Your task to perform on an android device: Open Google Maps Image 0: 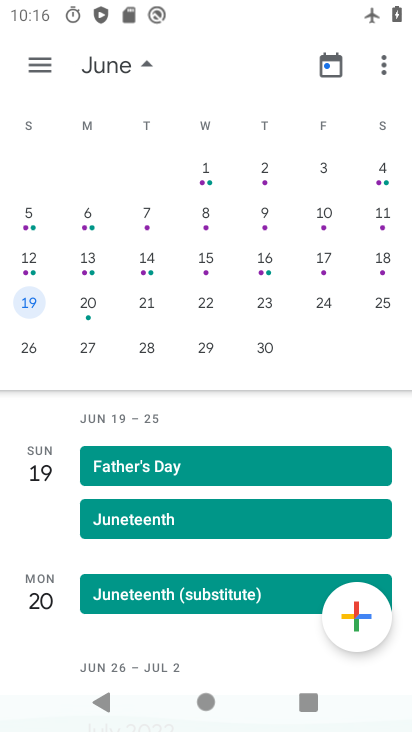
Step 0: press home button
Your task to perform on an android device: Open Google Maps Image 1: 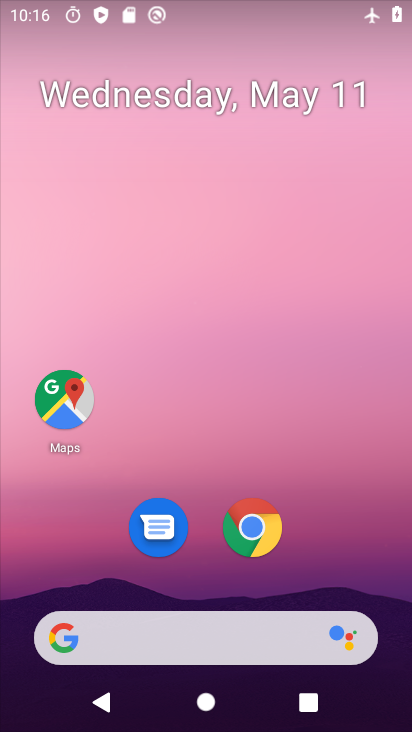
Step 1: drag from (252, 590) to (312, 170)
Your task to perform on an android device: Open Google Maps Image 2: 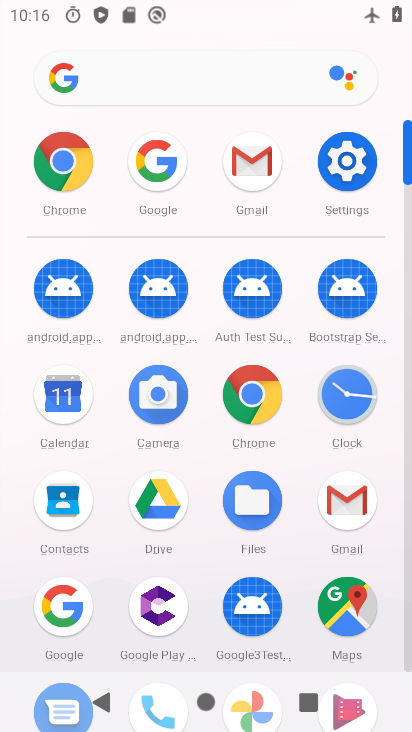
Step 2: drag from (300, 347) to (309, 153)
Your task to perform on an android device: Open Google Maps Image 3: 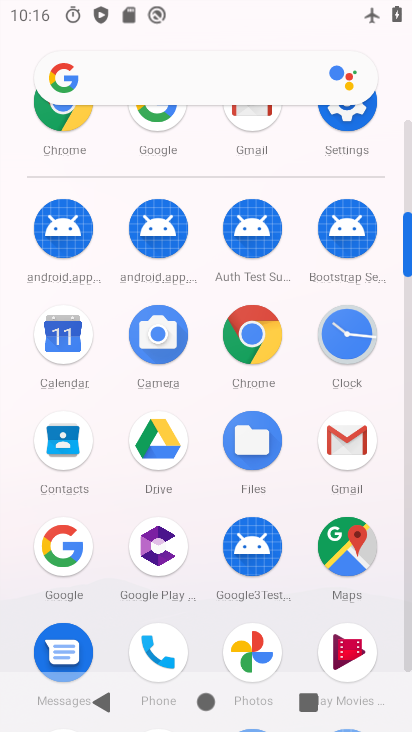
Step 3: drag from (290, 360) to (306, 93)
Your task to perform on an android device: Open Google Maps Image 4: 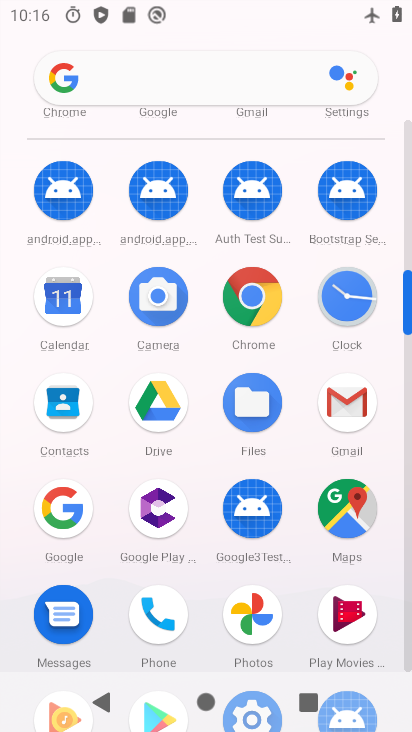
Step 4: drag from (238, 520) to (269, 286)
Your task to perform on an android device: Open Google Maps Image 5: 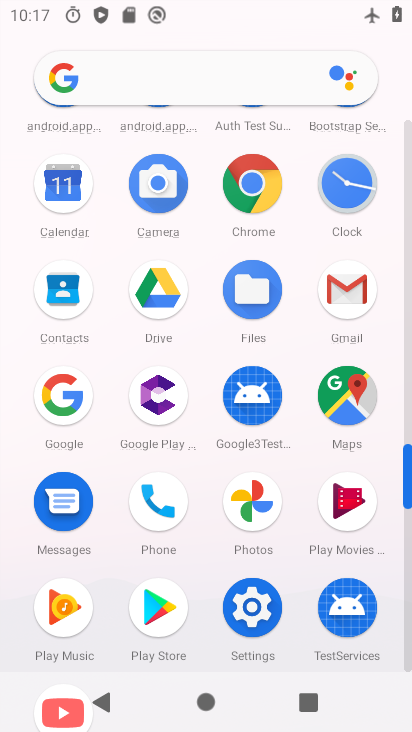
Step 5: click (345, 404)
Your task to perform on an android device: Open Google Maps Image 6: 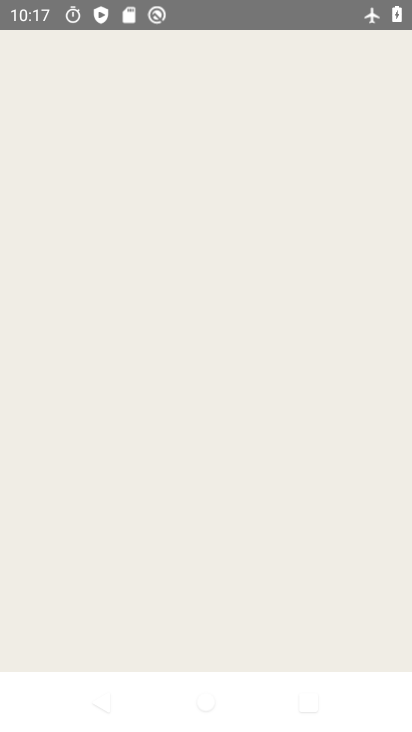
Step 6: click (345, 404)
Your task to perform on an android device: Open Google Maps Image 7: 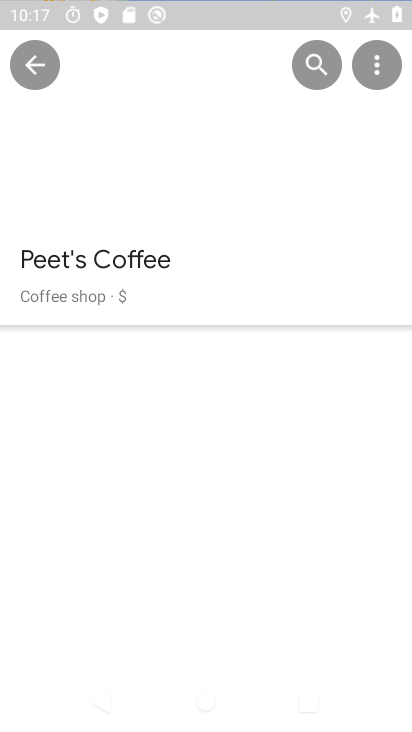
Step 7: click (39, 51)
Your task to perform on an android device: Open Google Maps Image 8: 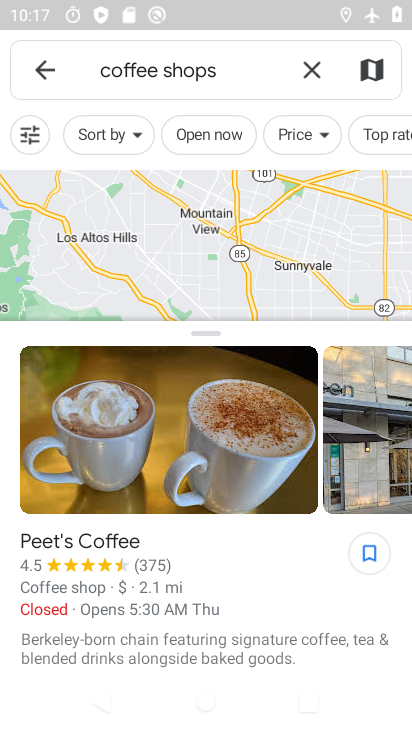
Step 8: click (303, 74)
Your task to perform on an android device: Open Google Maps Image 9: 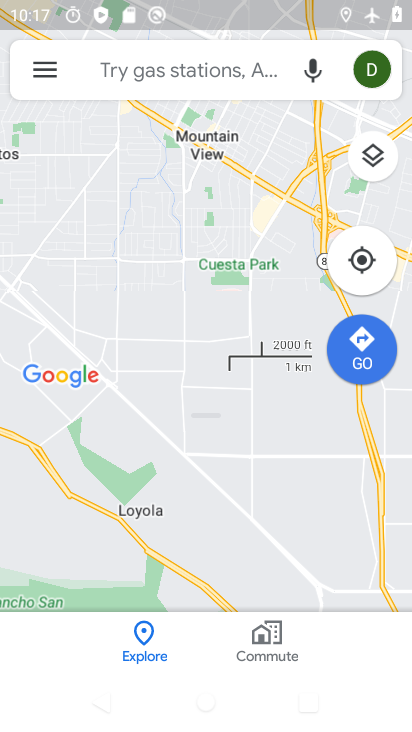
Step 9: click (225, 76)
Your task to perform on an android device: Open Google Maps Image 10: 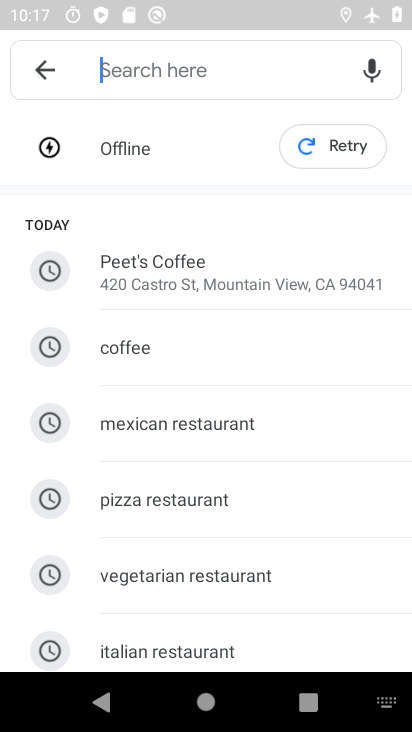
Step 10: task complete